Your task to perform on an android device: install app "Life360: Find Family & Friends" Image 0: 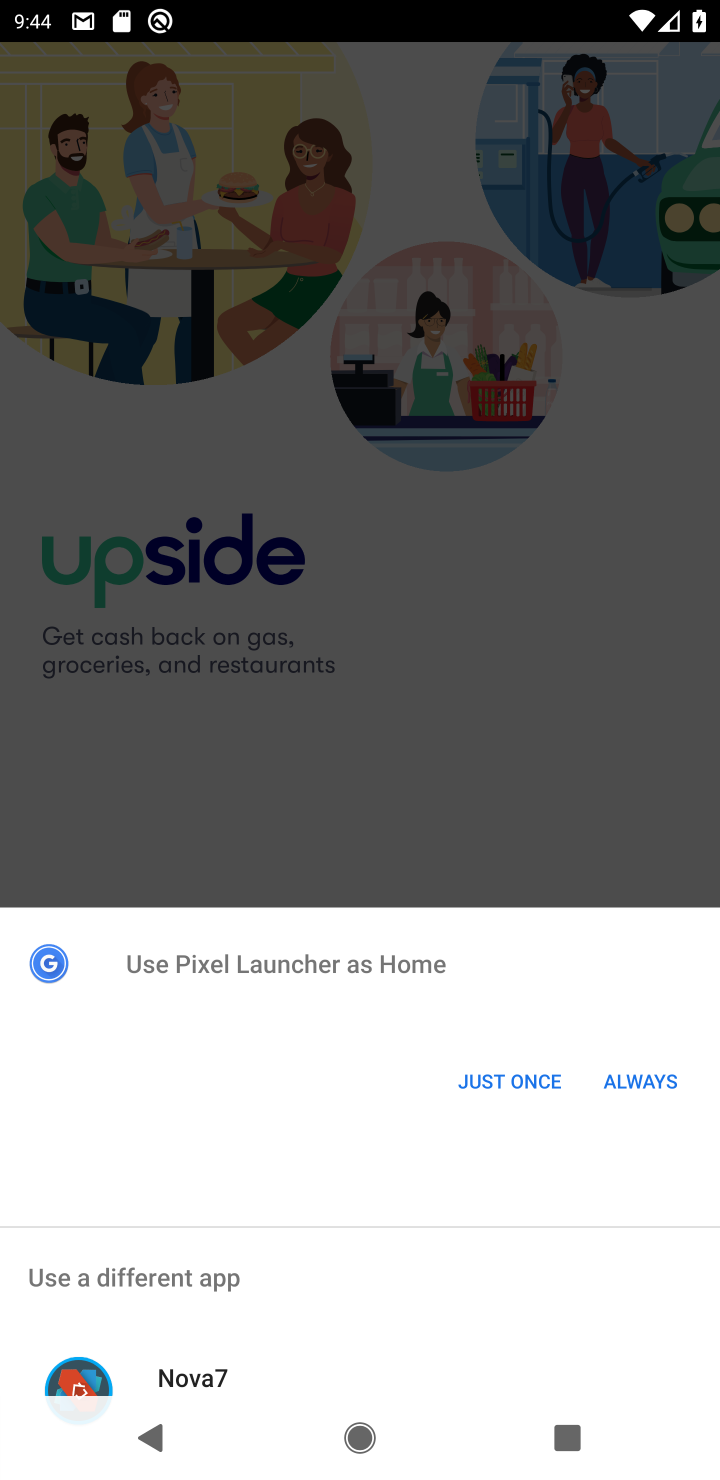
Step 0: press back button
Your task to perform on an android device: install app "Life360: Find Family & Friends" Image 1: 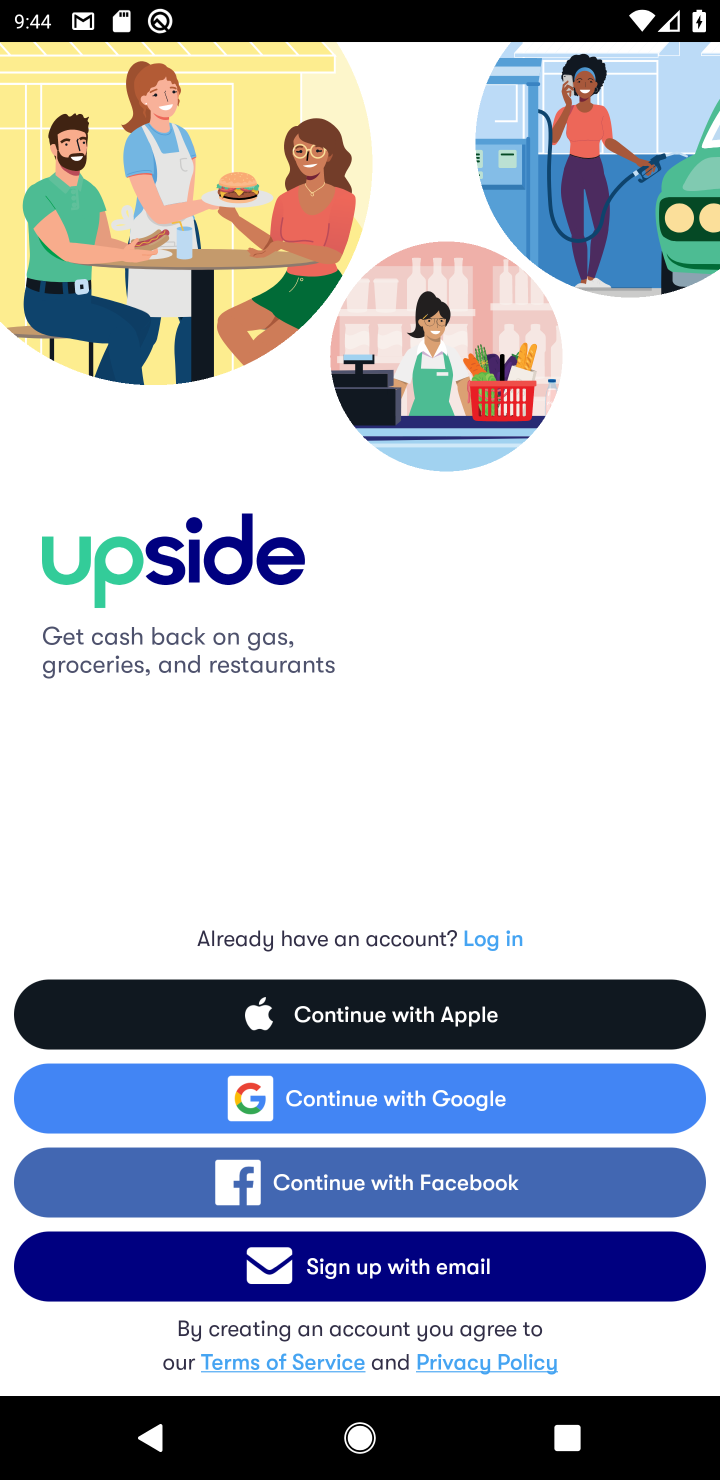
Step 1: press back button
Your task to perform on an android device: install app "Life360: Find Family & Friends" Image 2: 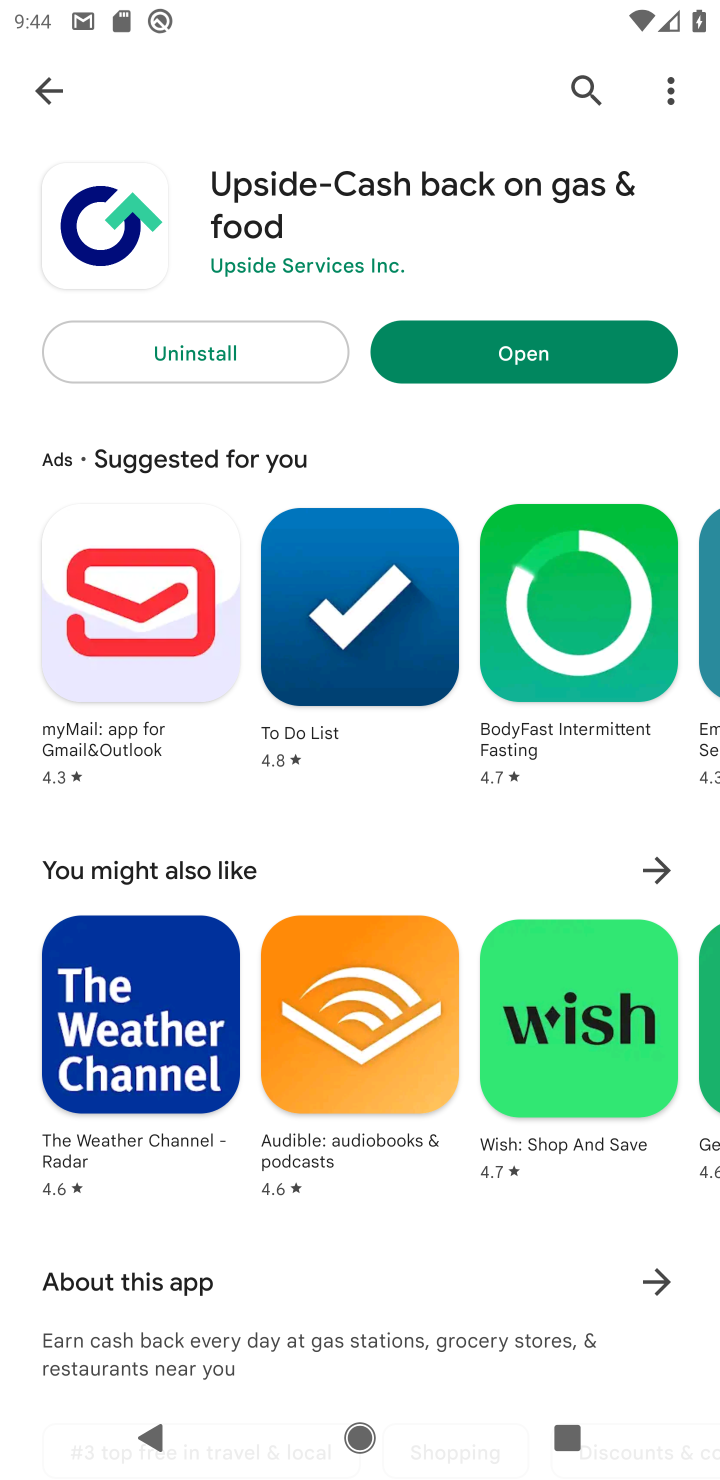
Step 2: press back button
Your task to perform on an android device: install app "Life360: Find Family & Friends" Image 3: 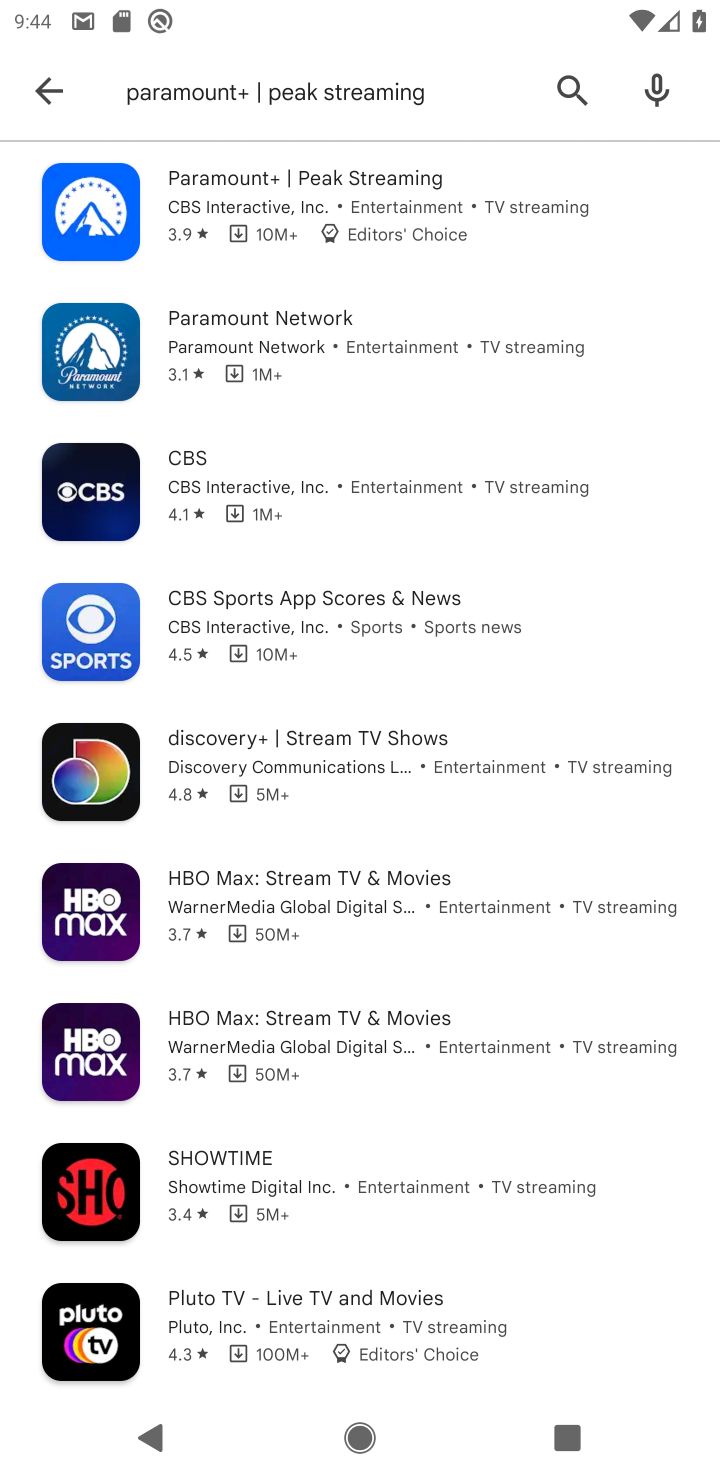
Step 3: click (575, 81)
Your task to perform on an android device: install app "Life360: Find Family & Friends" Image 4: 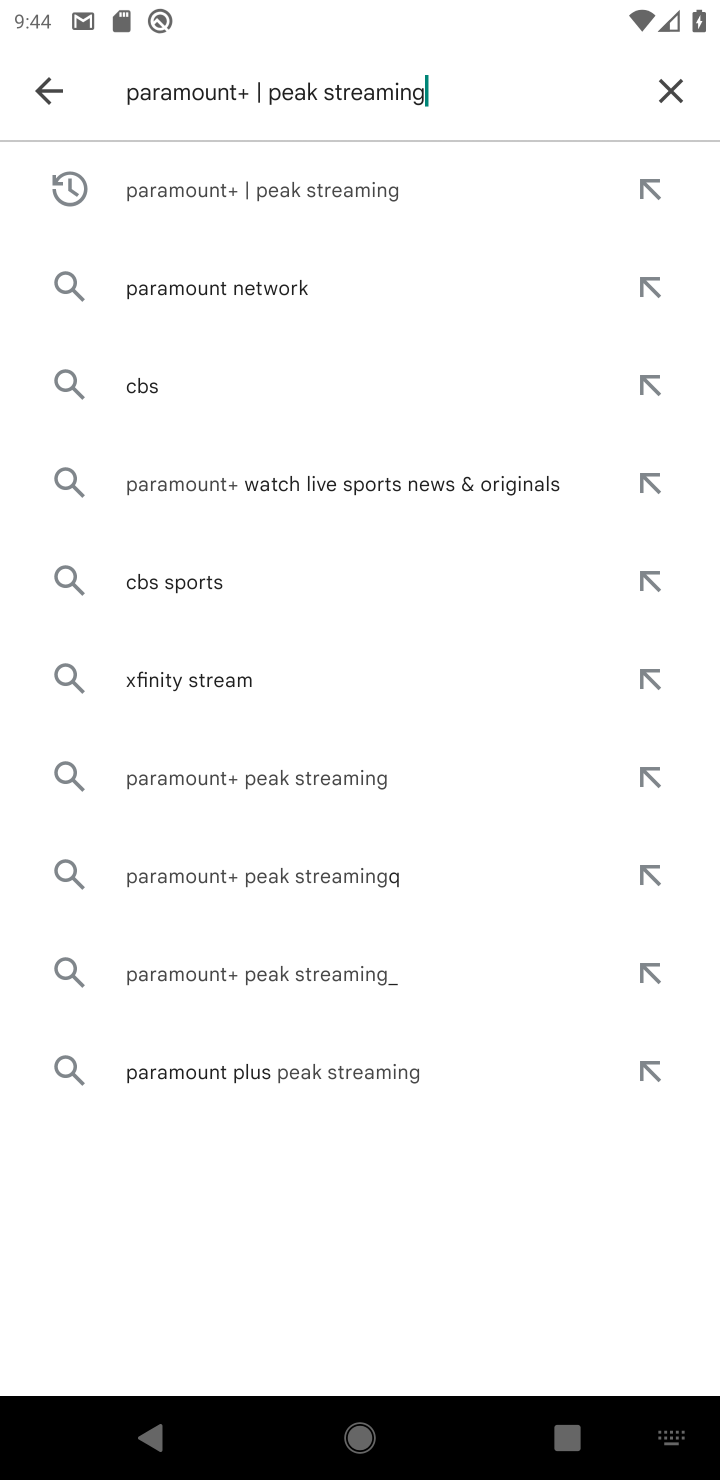
Step 4: click (669, 84)
Your task to perform on an android device: install app "Life360: Find Family & Friends" Image 5: 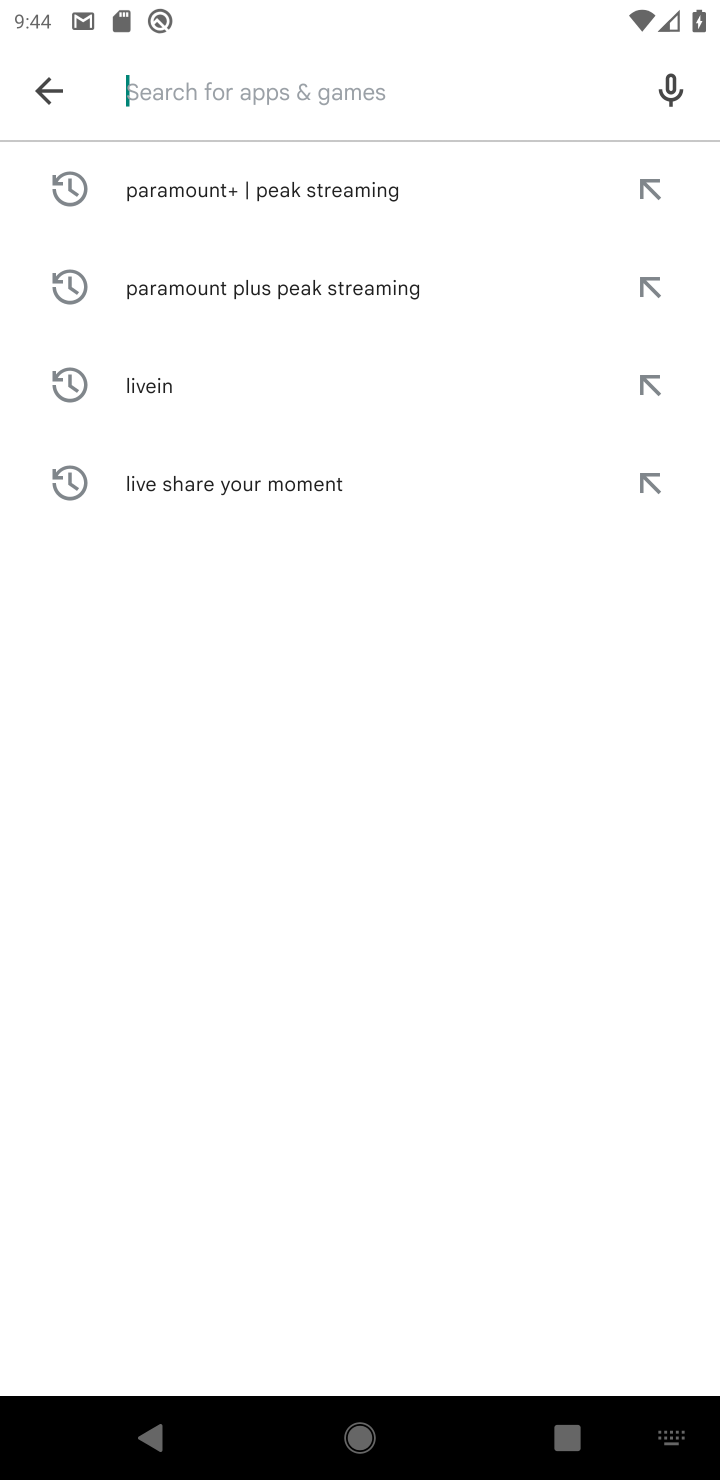
Step 5: type "Life360: Find Family & Friends"
Your task to perform on an android device: install app "Life360: Find Family & Friends" Image 6: 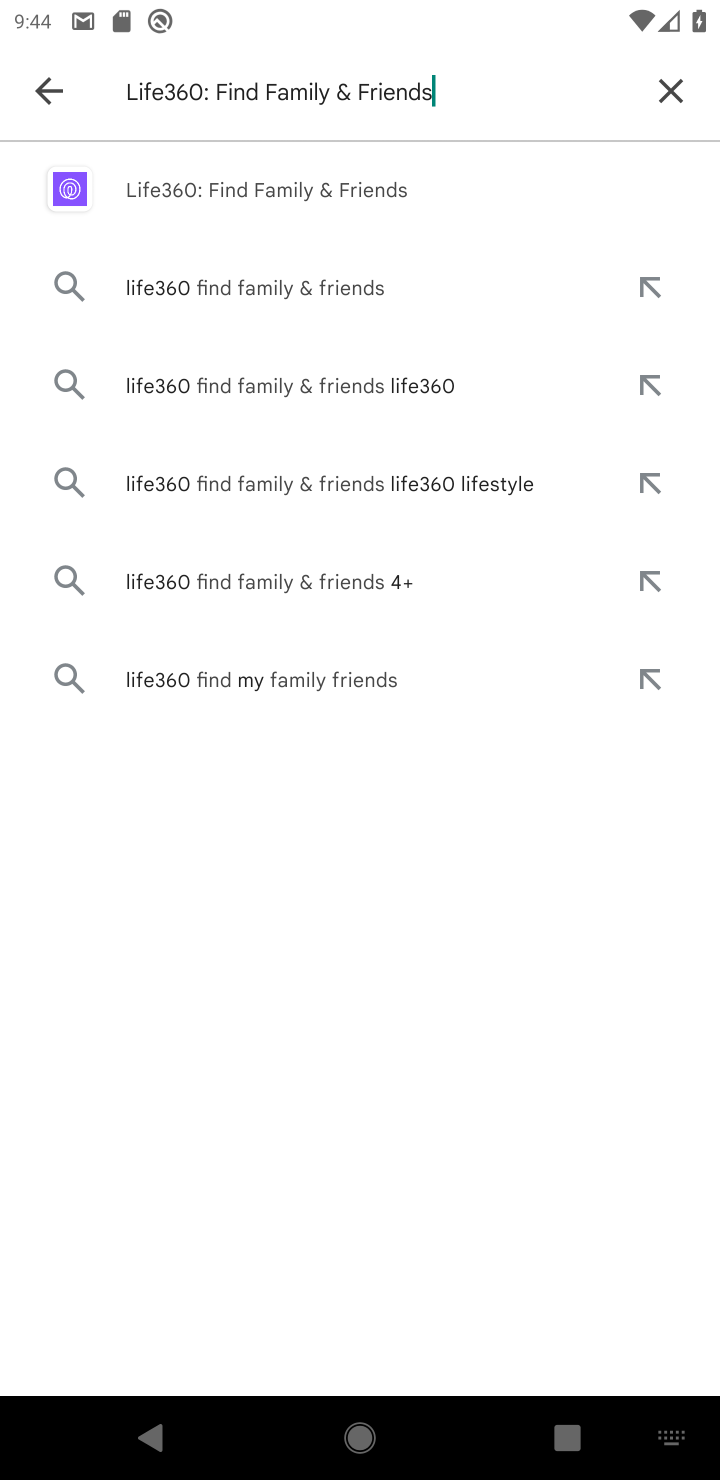
Step 6: click (315, 176)
Your task to perform on an android device: install app "Life360: Find Family & Friends" Image 7: 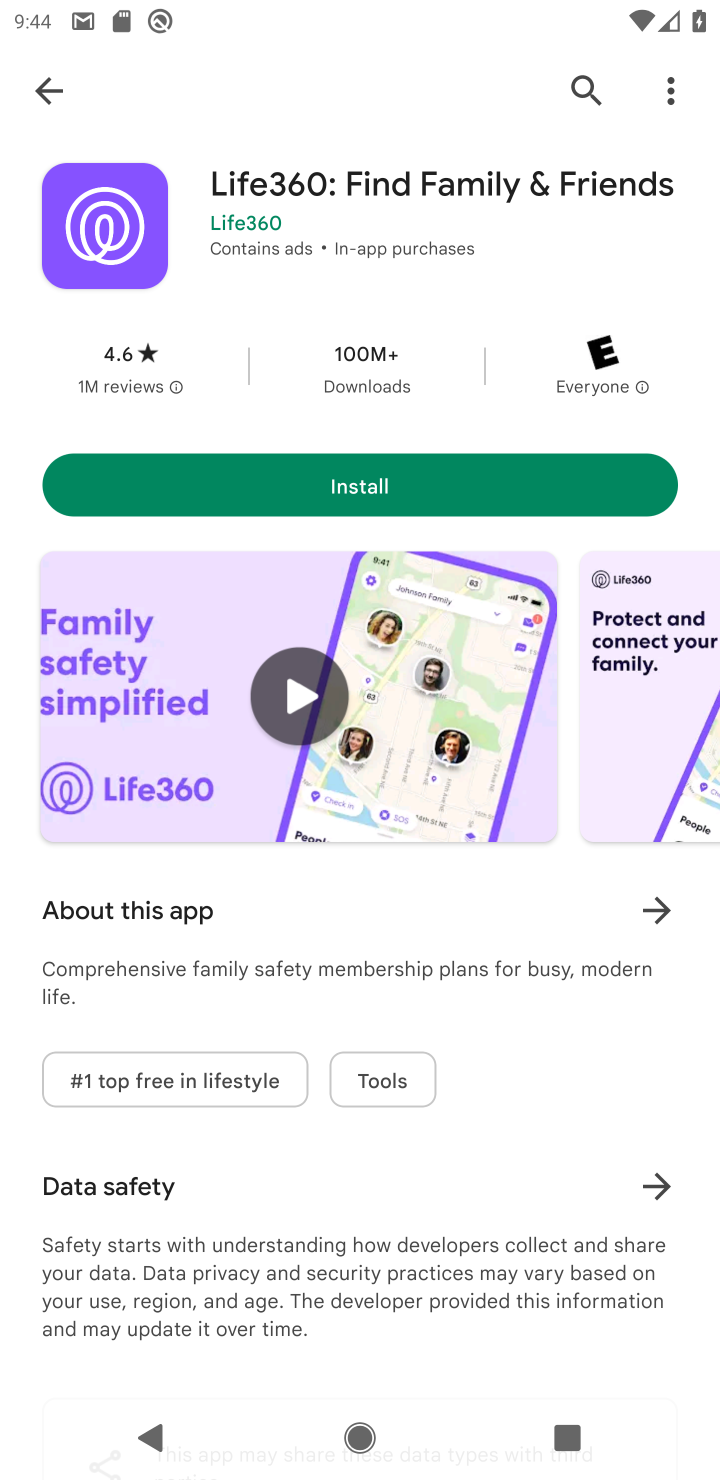
Step 7: click (403, 491)
Your task to perform on an android device: install app "Life360: Find Family & Friends" Image 8: 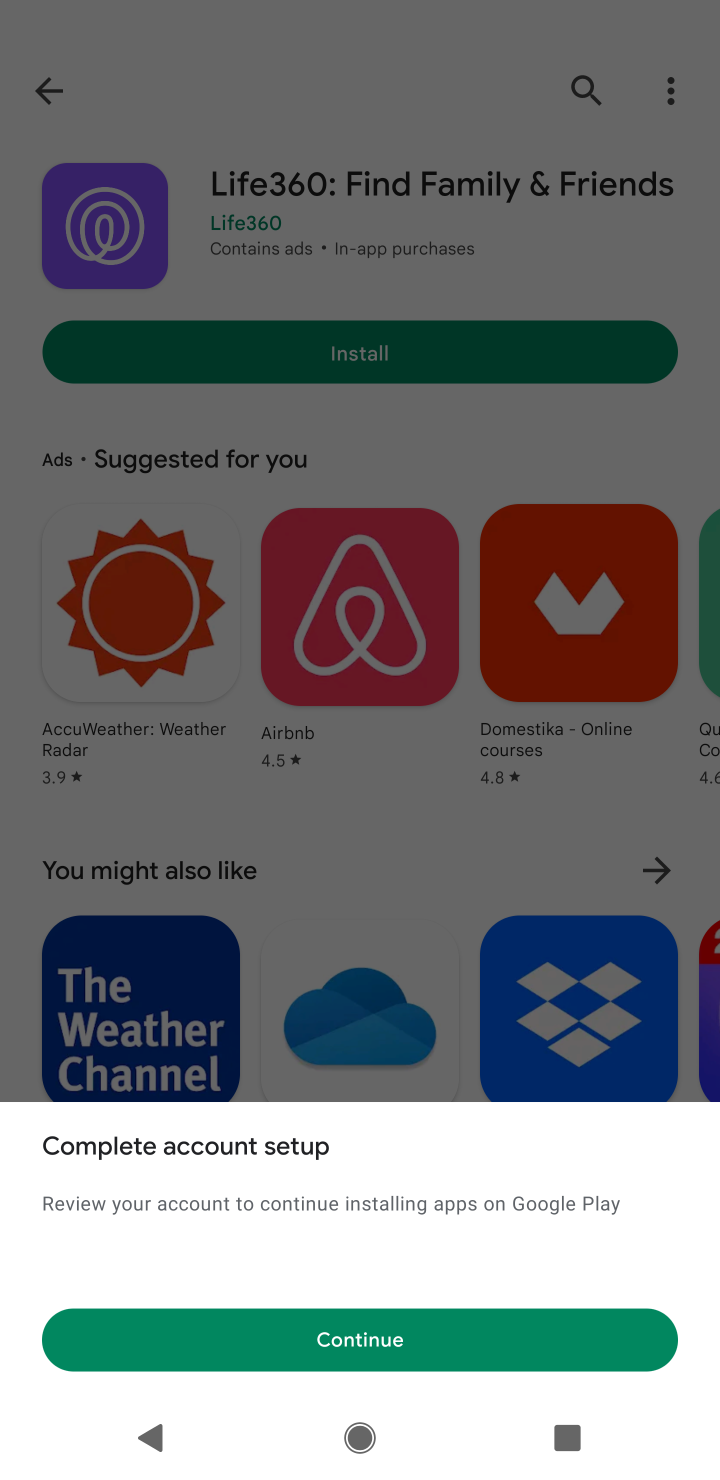
Step 8: click (377, 1346)
Your task to perform on an android device: install app "Life360: Find Family & Friends" Image 9: 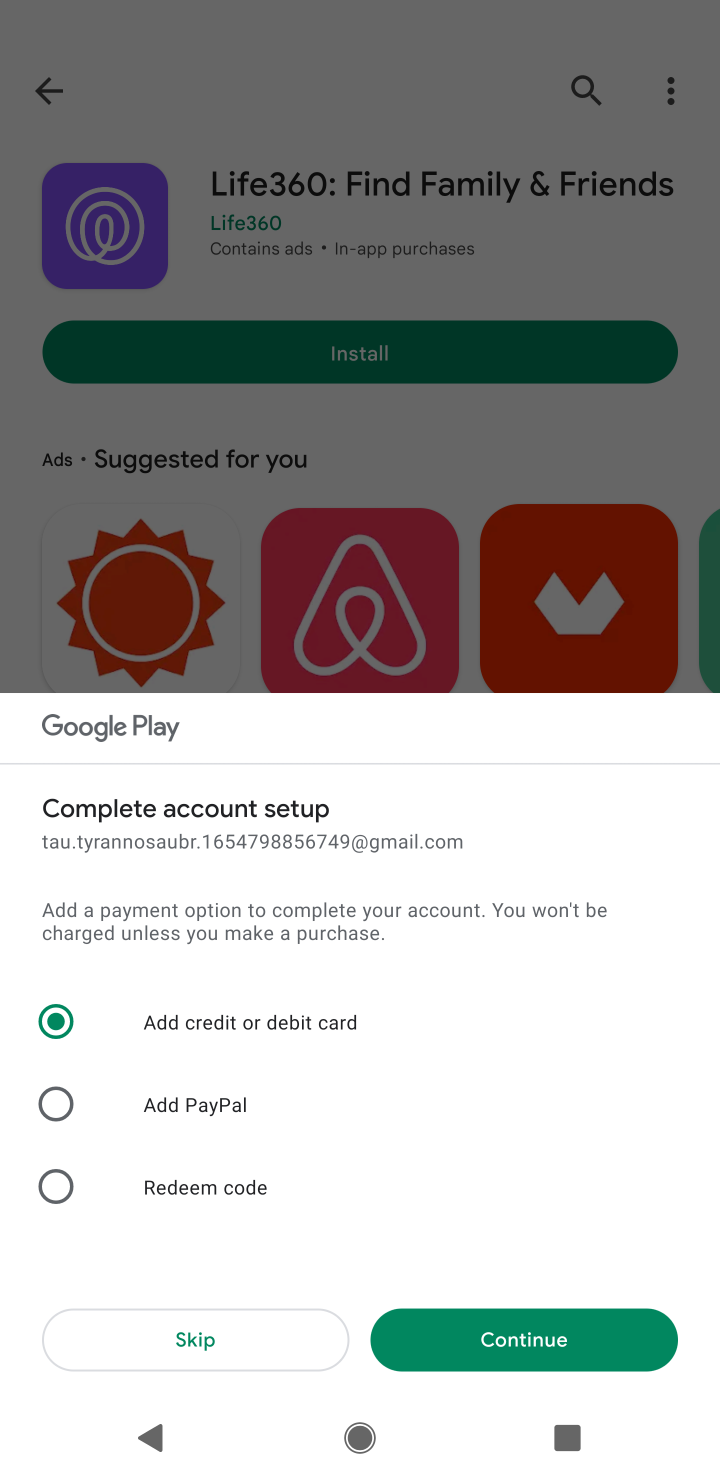
Step 9: click (218, 1331)
Your task to perform on an android device: install app "Life360: Find Family & Friends" Image 10: 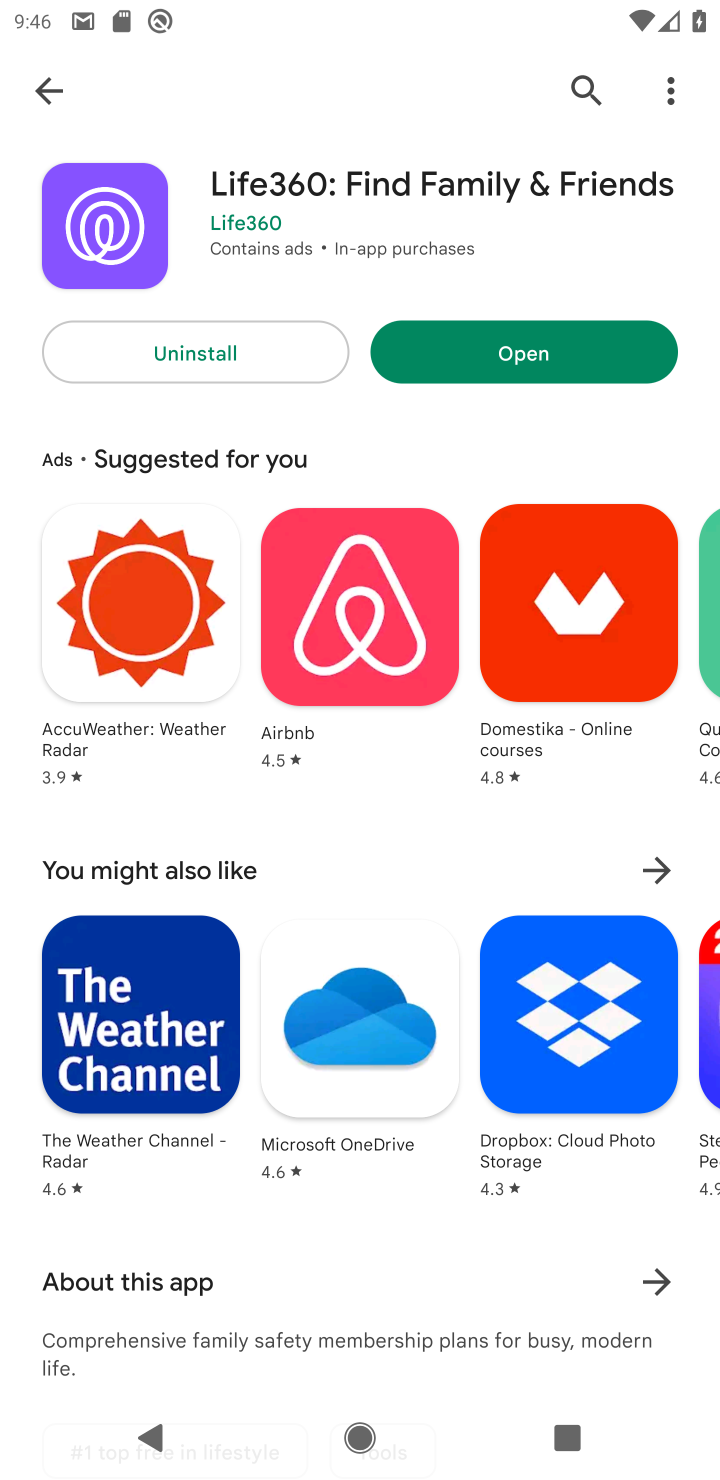
Step 10: task complete